Your task to perform on an android device: Search for seafood restaurants on Google Maps Image 0: 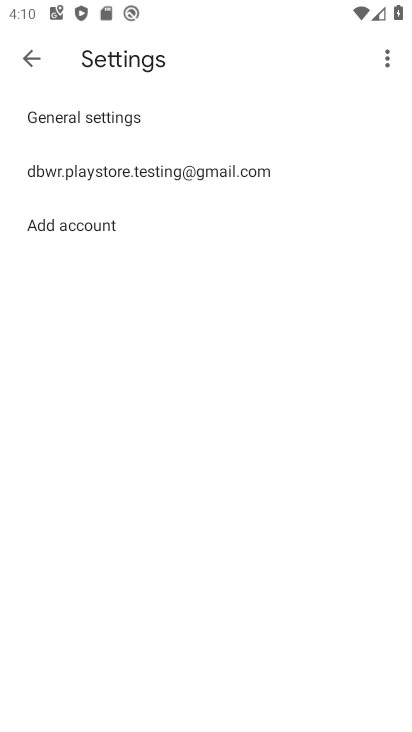
Step 0: press back button
Your task to perform on an android device: Search for seafood restaurants on Google Maps Image 1: 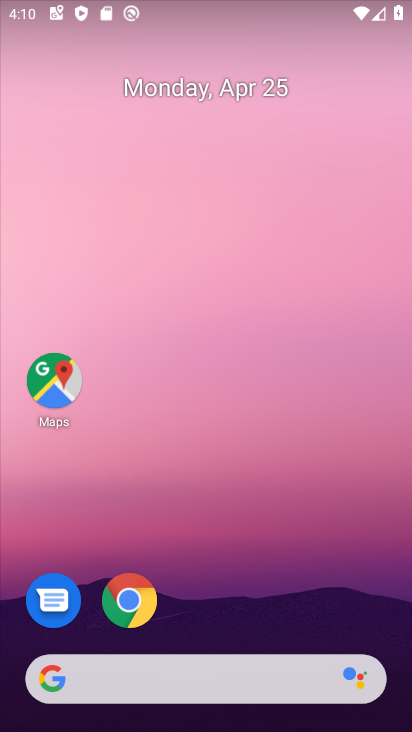
Step 1: drag from (246, 596) to (188, 21)
Your task to perform on an android device: Search for seafood restaurants on Google Maps Image 2: 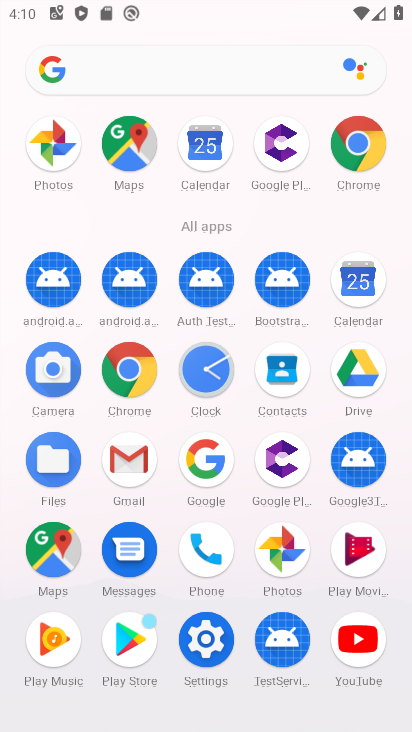
Step 2: click (129, 145)
Your task to perform on an android device: Search for seafood restaurants on Google Maps Image 3: 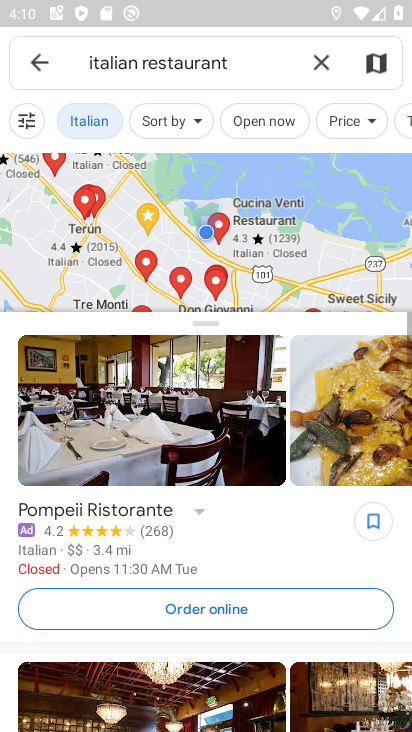
Step 3: click (316, 64)
Your task to perform on an android device: Search for seafood restaurants on Google Maps Image 4: 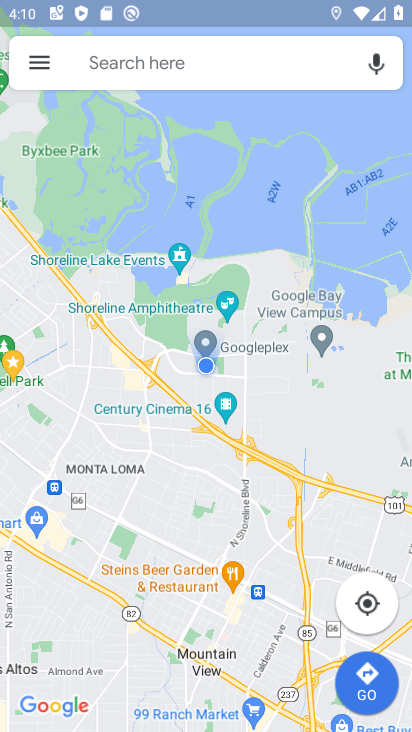
Step 4: click (267, 67)
Your task to perform on an android device: Search for seafood restaurants on Google Maps Image 5: 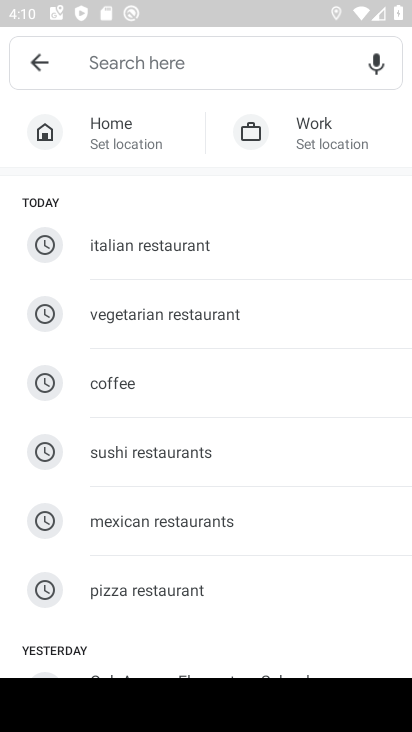
Step 5: type "seafood restaurants"
Your task to perform on an android device: Search for seafood restaurants on Google Maps Image 6: 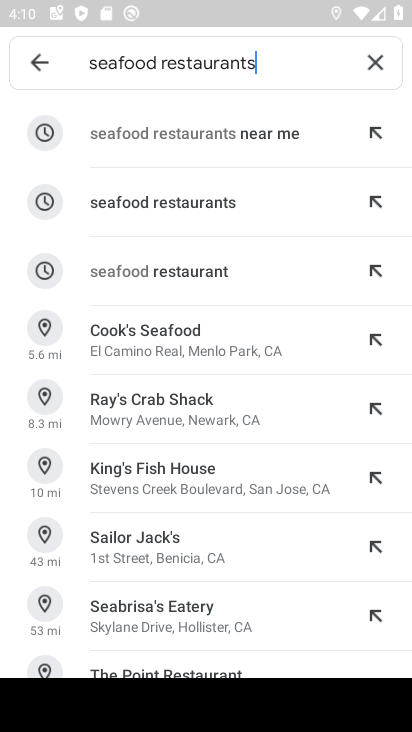
Step 6: click (182, 191)
Your task to perform on an android device: Search for seafood restaurants on Google Maps Image 7: 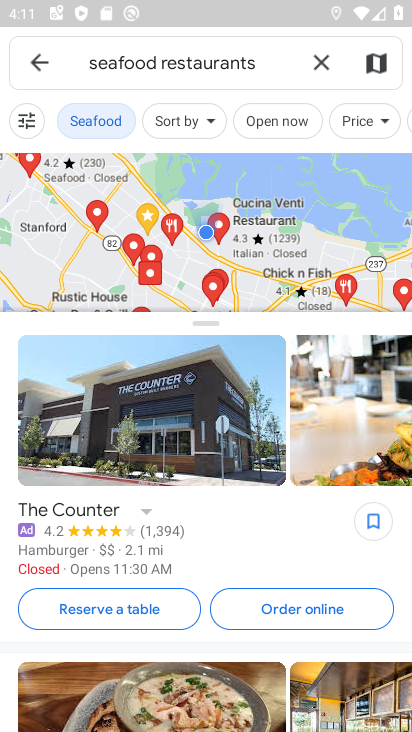
Step 7: task complete